Your task to perform on an android device: Open calendar and show me the third week of next month Image 0: 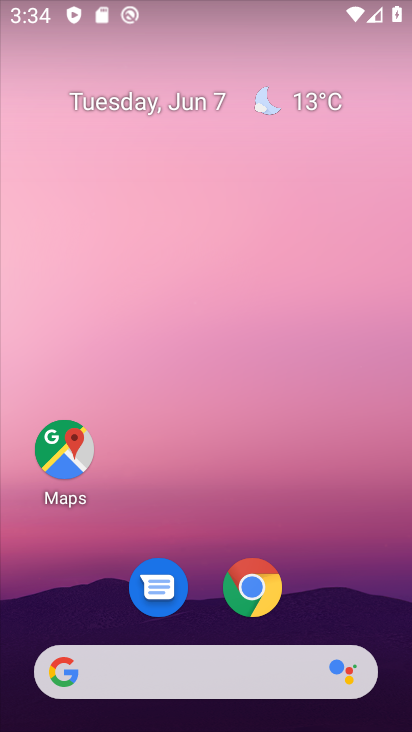
Step 0: drag from (260, 580) to (260, 273)
Your task to perform on an android device: Open calendar and show me the third week of next month Image 1: 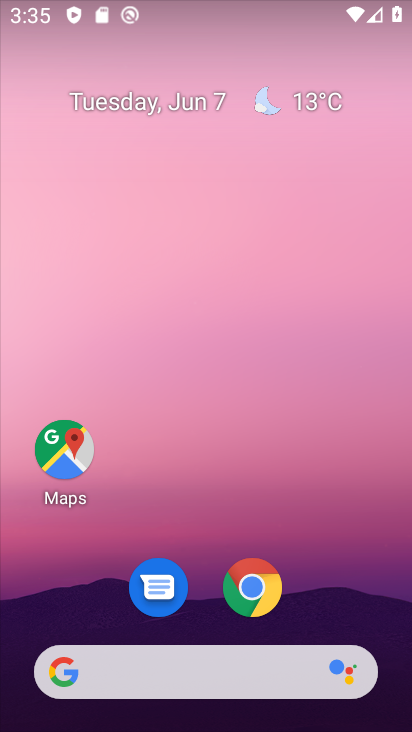
Step 1: drag from (173, 551) to (187, 275)
Your task to perform on an android device: Open calendar and show me the third week of next month Image 2: 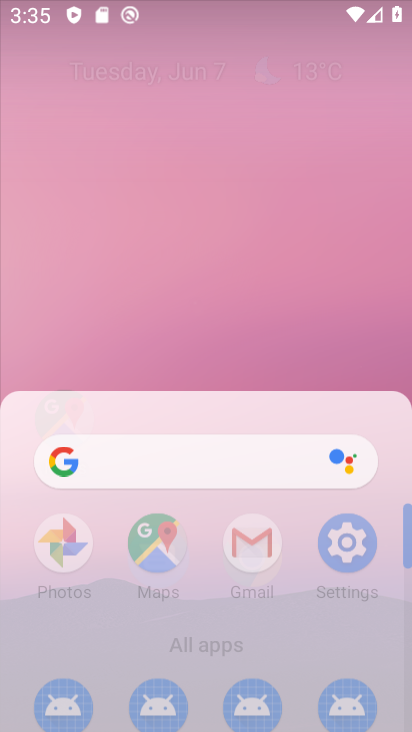
Step 2: click (203, 172)
Your task to perform on an android device: Open calendar and show me the third week of next month Image 3: 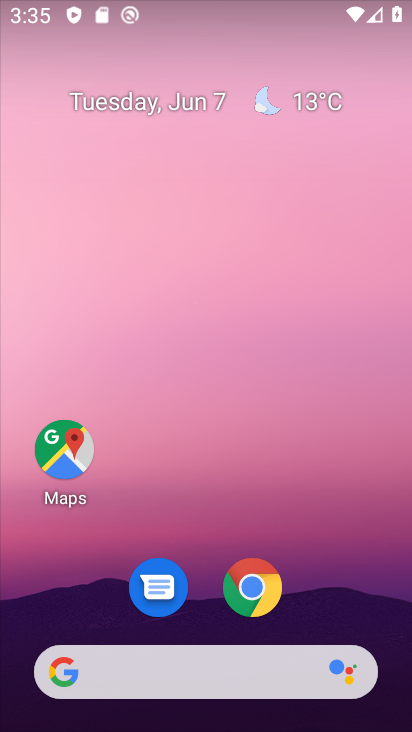
Step 3: drag from (244, 538) to (238, 165)
Your task to perform on an android device: Open calendar and show me the third week of next month Image 4: 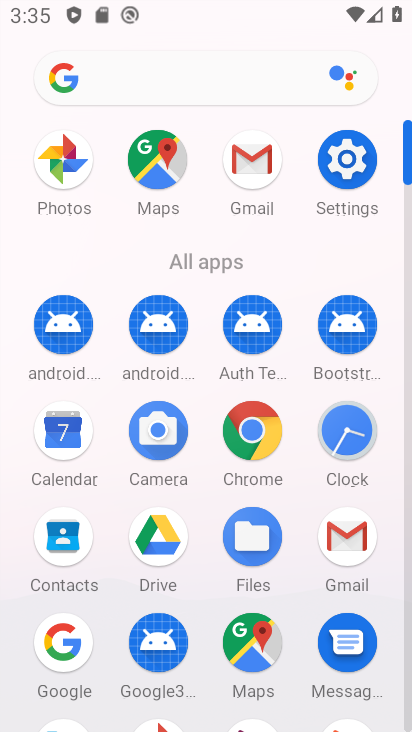
Step 4: click (67, 436)
Your task to perform on an android device: Open calendar and show me the third week of next month Image 5: 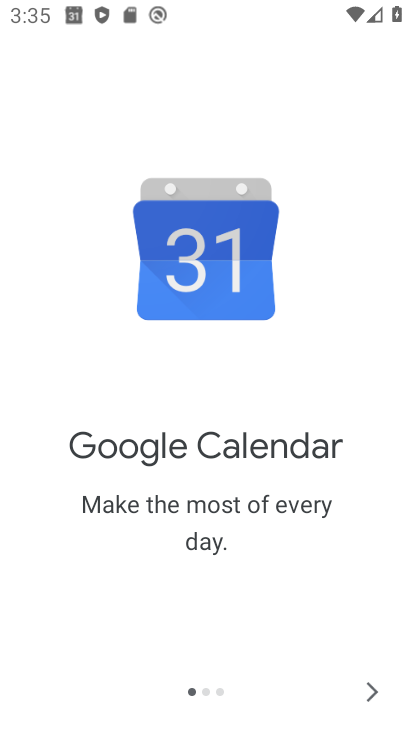
Step 5: click (378, 703)
Your task to perform on an android device: Open calendar and show me the third week of next month Image 6: 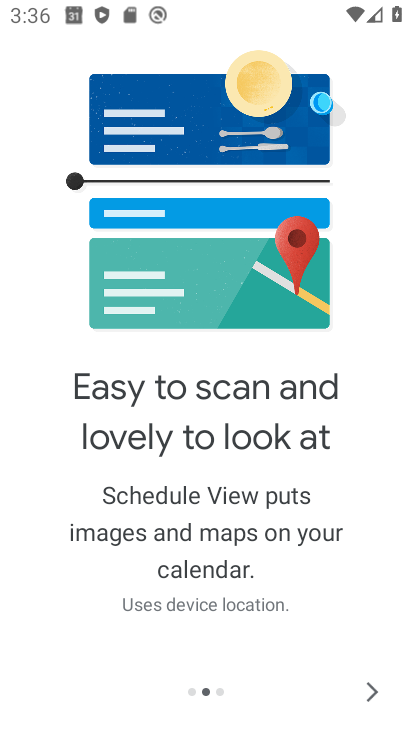
Step 6: click (379, 690)
Your task to perform on an android device: Open calendar and show me the third week of next month Image 7: 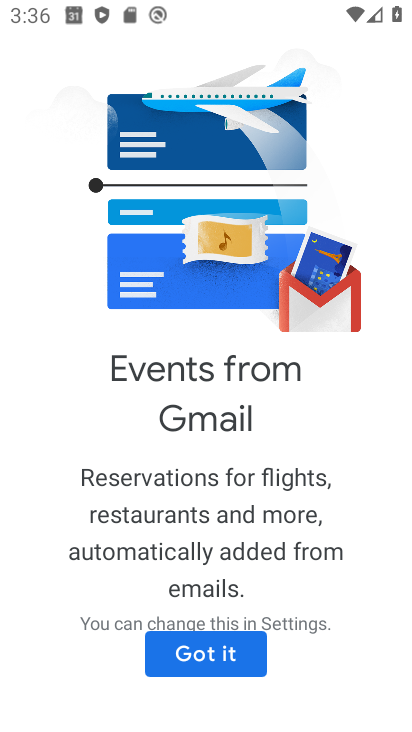
Step 7: click (232, 660)
Your task to perform on an android device: Open calendar and show me the third week of next month Image 8: 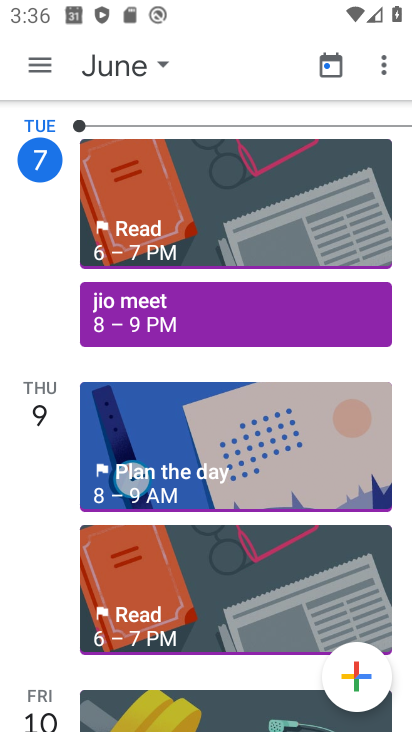
Step 8: click (150, 69)
Your task to perform on an android device: Open calendar and show me the third week of next month Image 9: 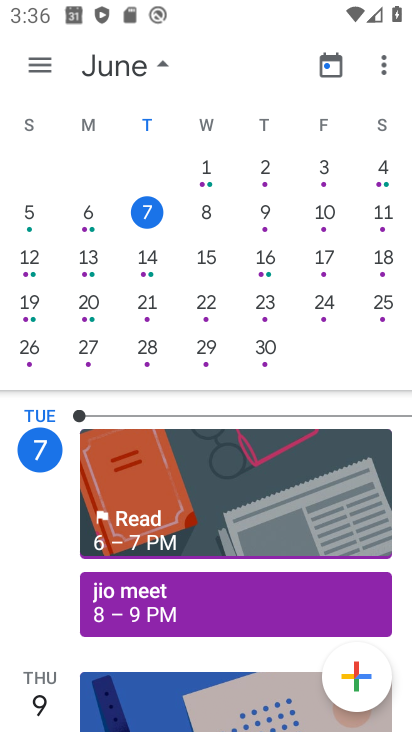
Step 9: drag from (346, 315) to (104, 301)
Your task to perform on an android device: Open calendar and show me the third week of next month Image 10: 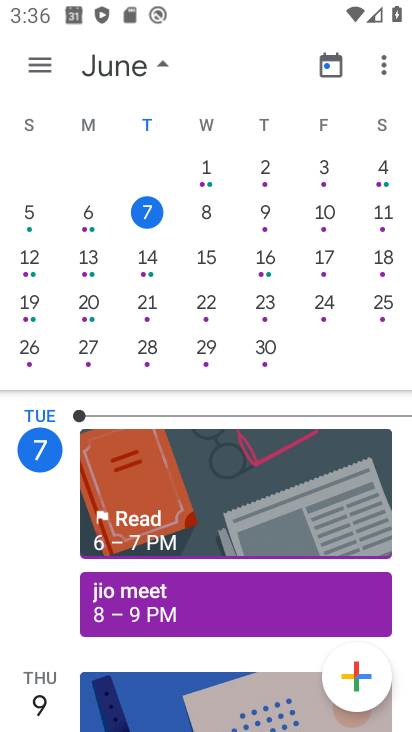
Step 10: click (37, 295)
Your task to perform on an android device: Open calendar and show me the third week of next month Image 11: 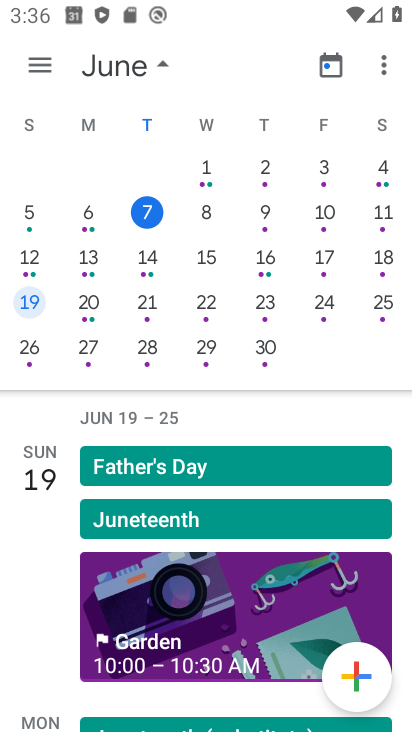
Step 11: task complete